Your task to perform on an android device: toggle notification dots Image 0: 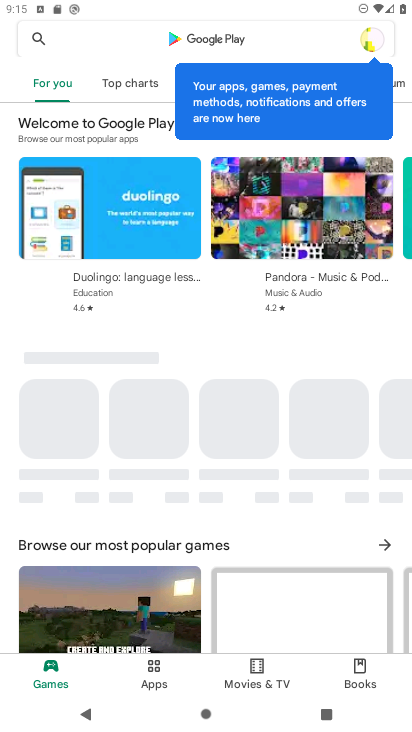
Step 0: press home button
Your task to perform on an android device: toggle notification dots Image 1: 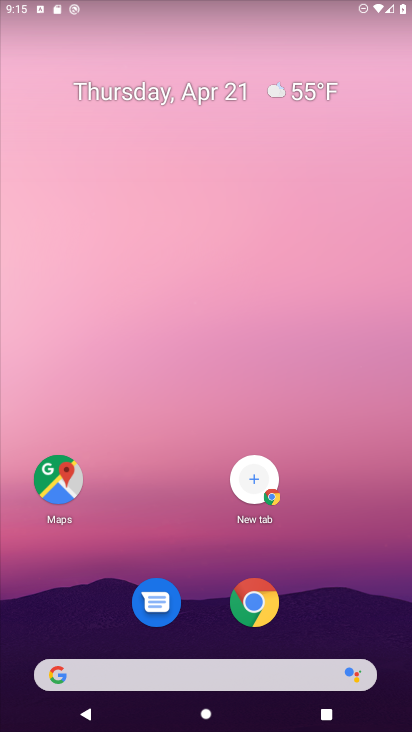
Step 1: drag from (217, 627) to (187, 194)
Your task to perform on an android device: toggle notification dots Image 2: 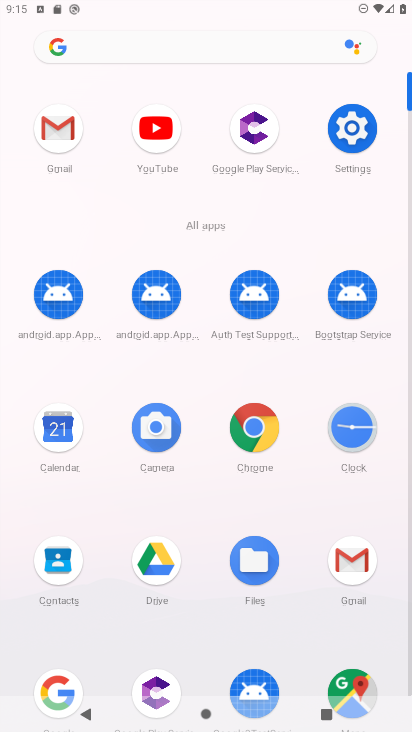
Step 2: click (339, 122)
Your task to perform on an android device: toggle notification dots Image 3: 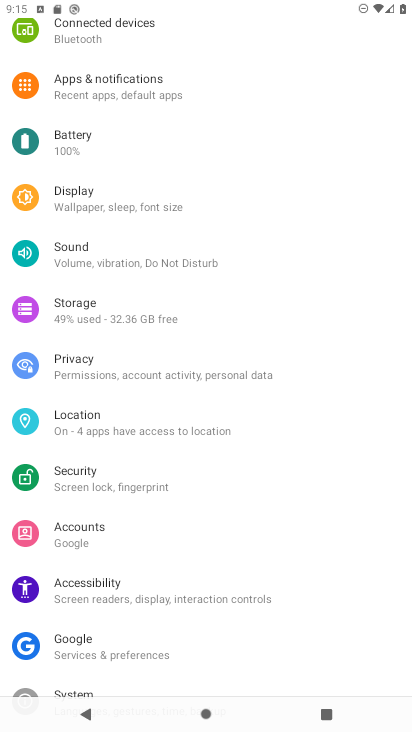
Step 3: click (143, 107)
Your task to perform on an android device: toggle notification dots Image 4: 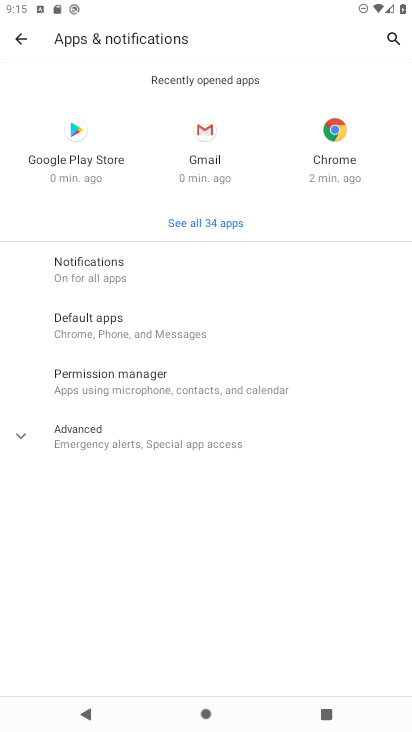
Step 4: click (122, 276)
Your task to perform on an android device: toggle notification dots Image 5: 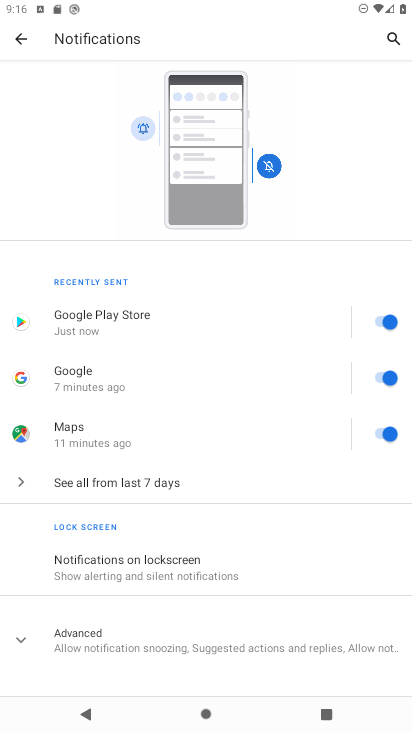
Step 5: click (167, 641)
Your task to perform on an android device: toggle notification dots Image 6: 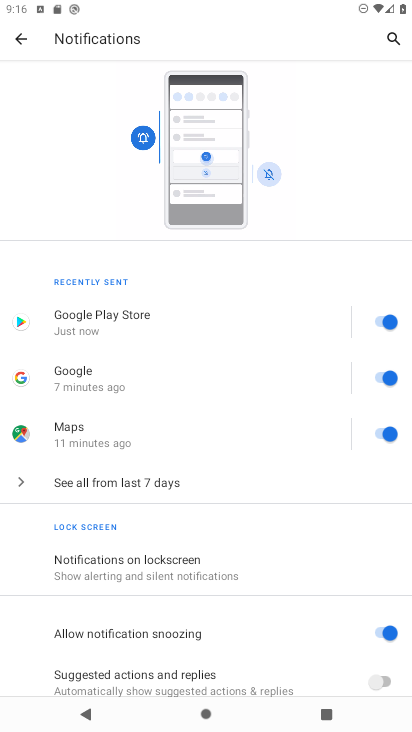
Step 6: drag from (167, 641) to (229, 194)
Your task to perform on an android device: toggle notification dots Image 7: 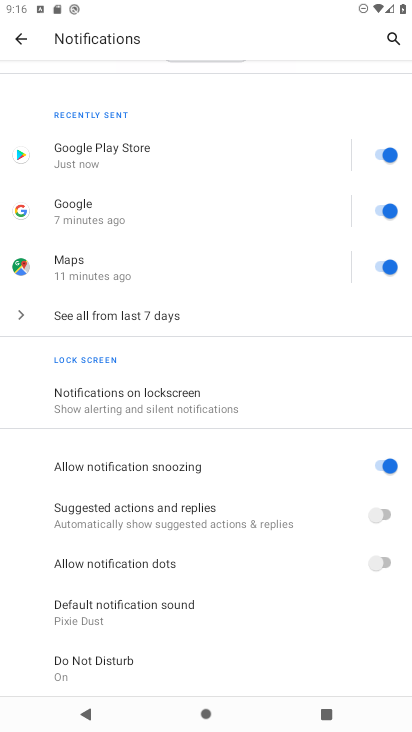
Step 7: click (384, 561)
Your task to perform on an android device: toggle notification dots Image 8: 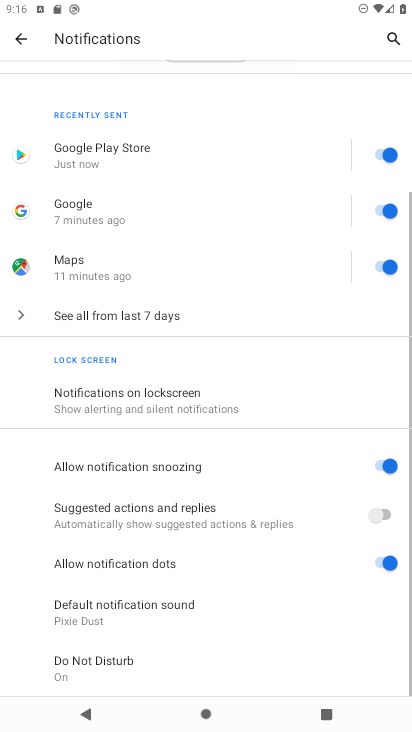
Step 8: click (384, 561)
Your task to perform on an android device: toggle notification dots Image 9: 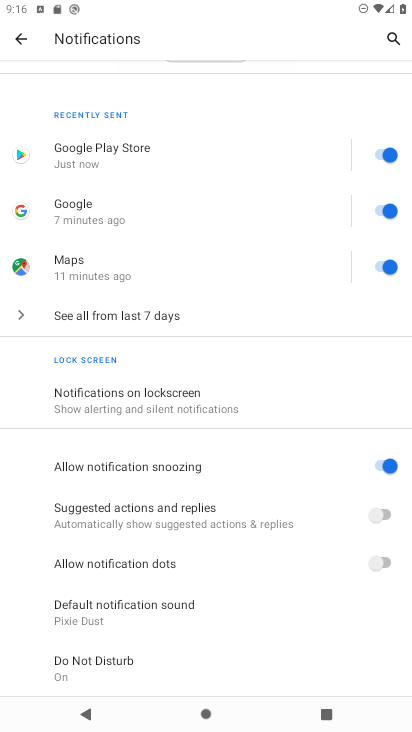
Step 9: click (384, 561)
Your task to perform on an android device: toggle notification dots Image 10: 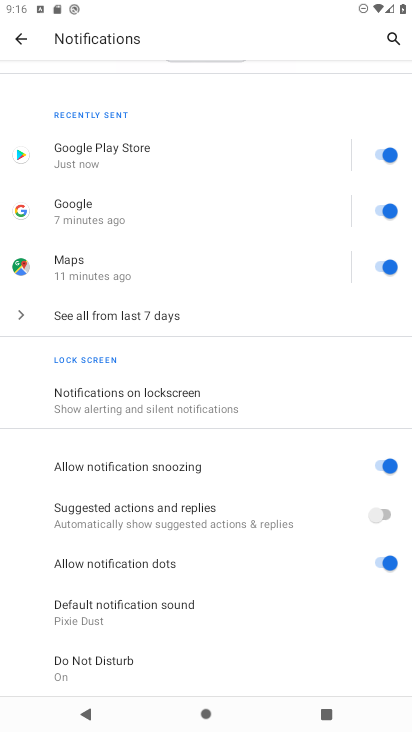
Step 10: task complete